Your task to perform on an android device: turn off notifications in google photos Image 0: 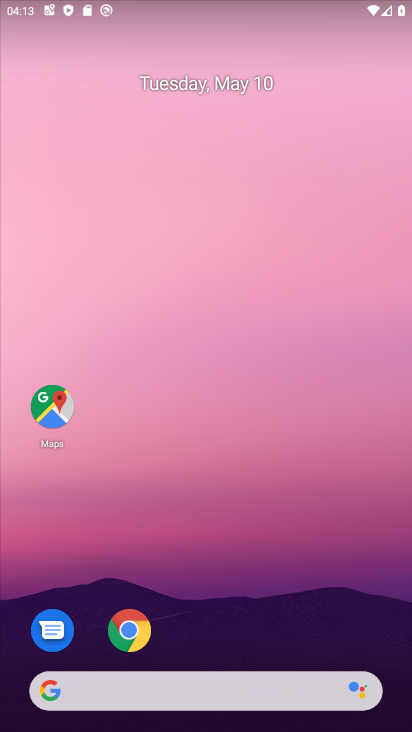
Step 0: drag from (200, 623) to (226, 128)
Your task to perform on an android device: turn off notifications in google photos Image 1: 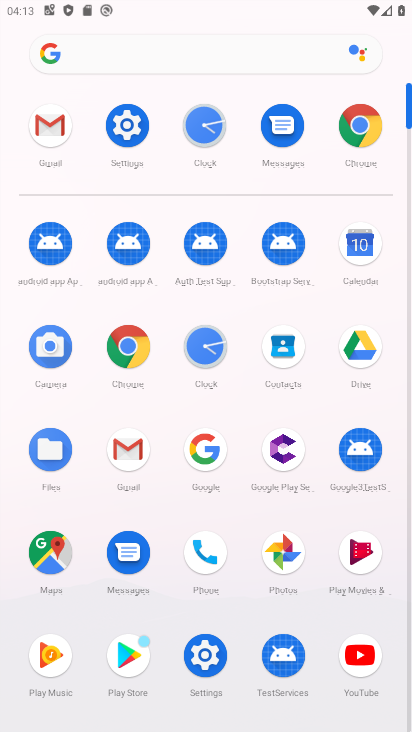
Step 1: click (287, 574)
Your task to perform on an android device: turn off notifications in google photos Image 2: 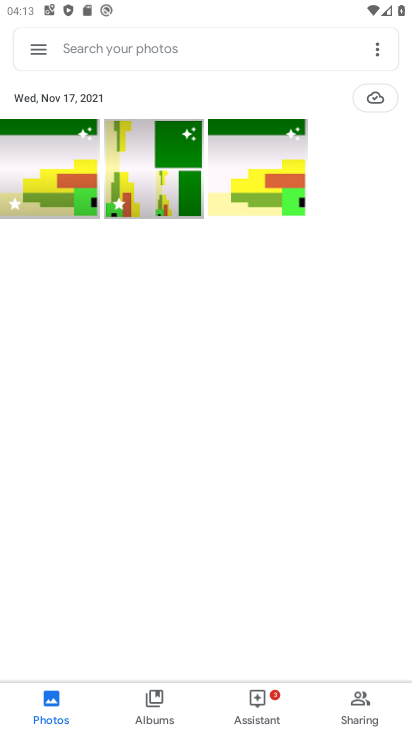
Step 2: click (32, 55)
Your task to perform on an android device: turn off notifications in google photos Image 3: 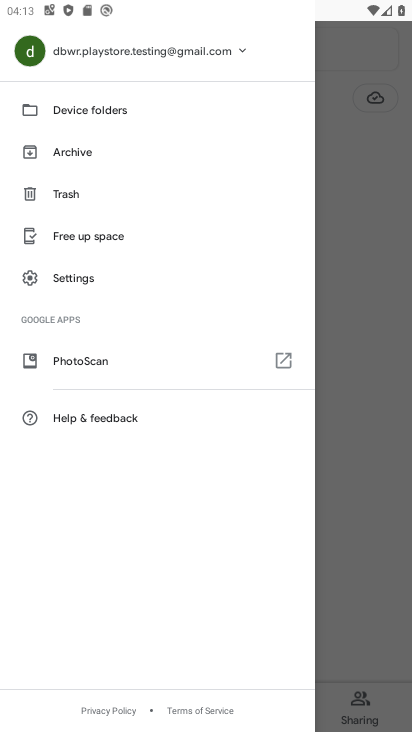
Step 3: click (99, 287)
Your task to perform on an android device: turn off notifications in google photos Image 4: 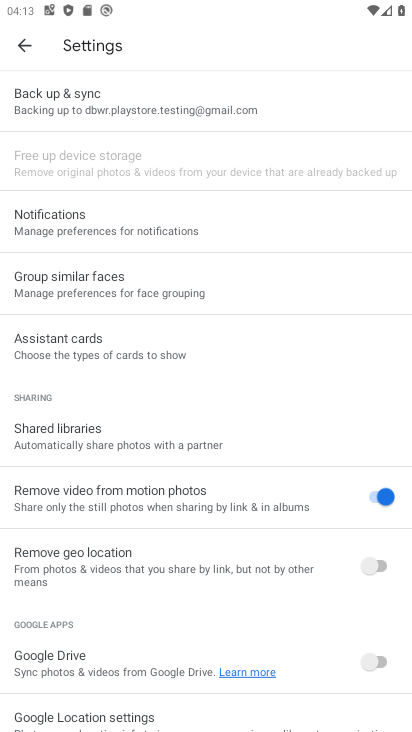
Step 4: click (127, 227)
Your task to perform on an android device: turn off notifications in google photos Image 5: 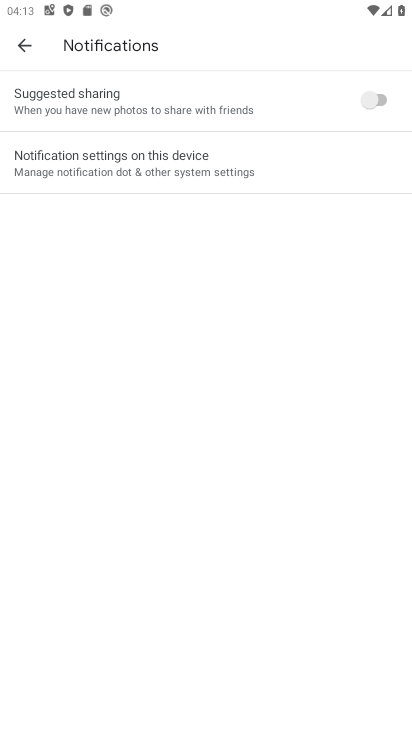
Step 5: click (216, 149)
Your task to perform on an android device: turn off notifications in google photos Image 6: 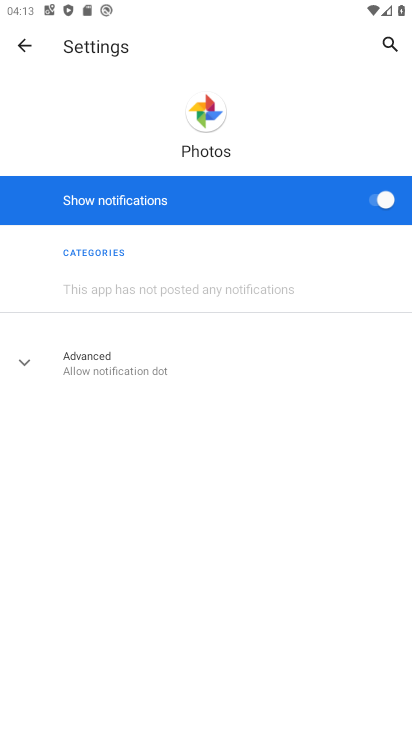
Step 6: click (382, 212)
Your task to perform on an android device: turn off notifications in google photos Image 7: 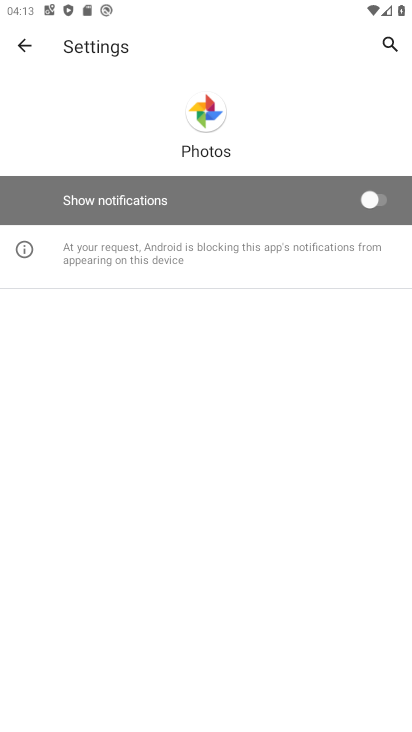
Step 7: task complete